Your task to perform on an android device: turn off translation in the chrome app Image 0: 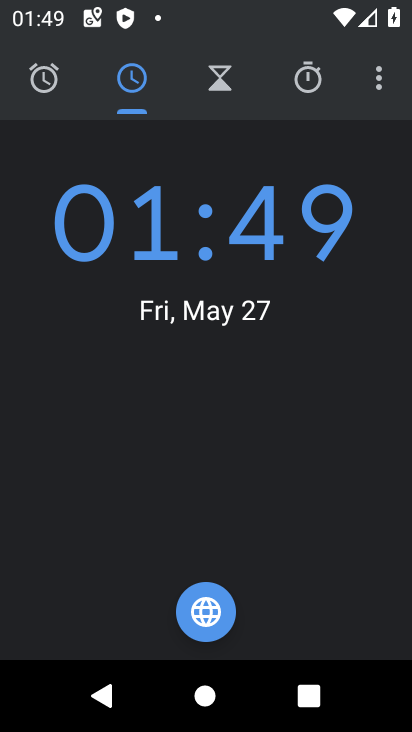
Step 0: press home button
Your task to perform on an android device: turn off translation in the chrome app Image 1: 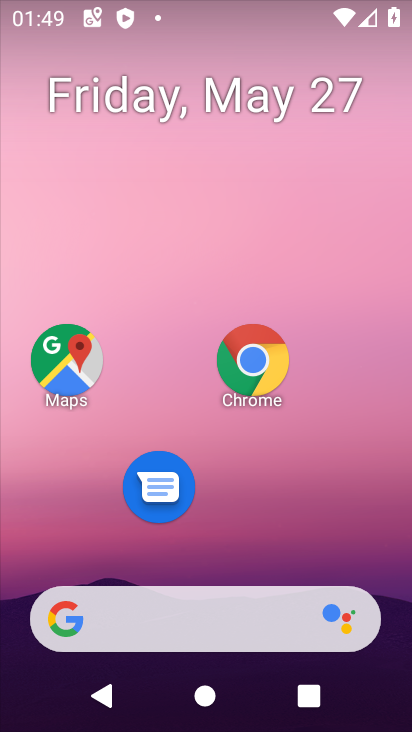
Step 1: click (257, 365)
Your task to perform on an android device: turn off translation in the chrome app Image 2: 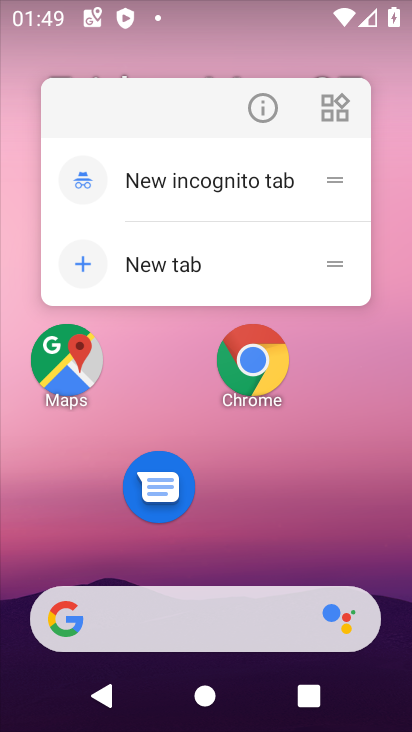
Step 2: click (257, 365)
Your task to perform on an android device: turn off translation in the chrome app Image 3: 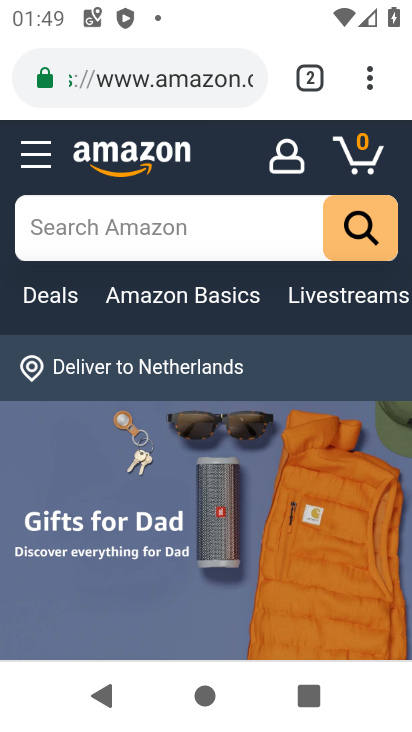
Step 3: click (361, 74)
Your task to perform on an android device: turn off translation in the chrome app Image 4: 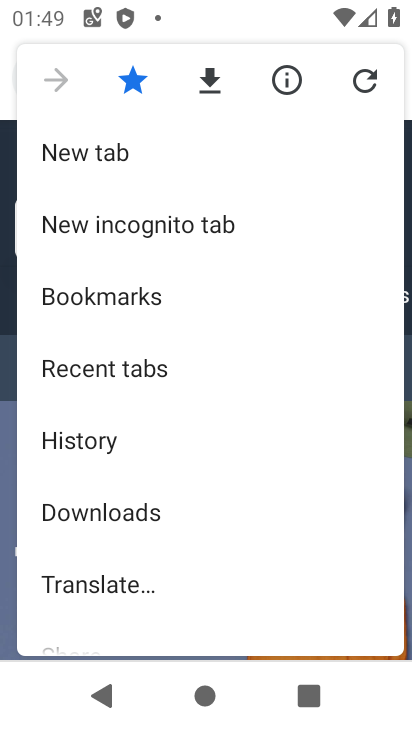
Step 4: drag from (198, 486) to (208, 79)
Your task to perform on an android device: turn off translation in the chrome app Image 5: 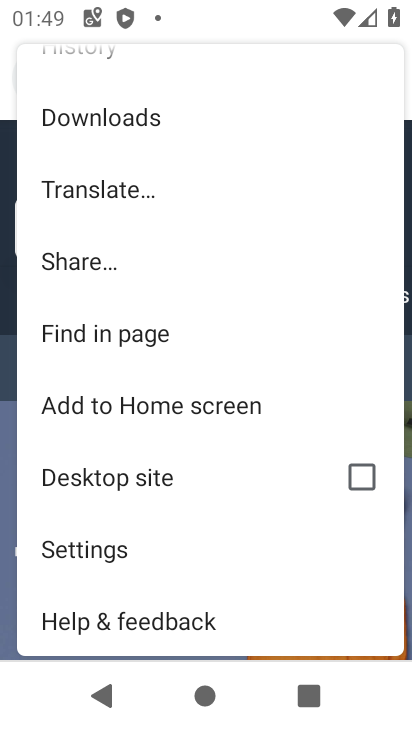
Step 5: click (107, 552)
Your task to perform on an android device: turn off translation in the chrome app Image 6: 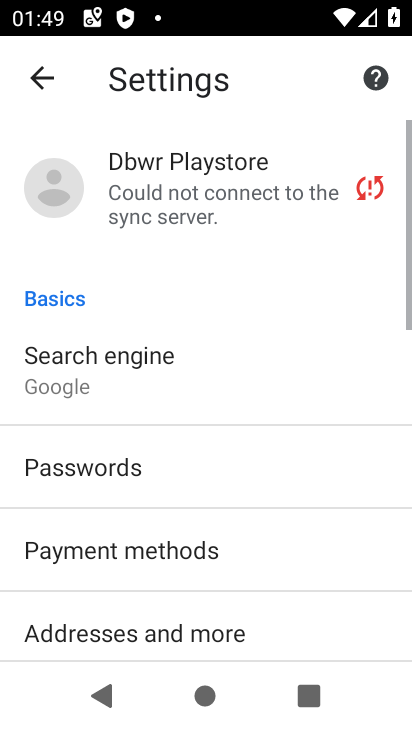
Step 6: drag from (238, 556) to (239, 114)
Your task to perform on an android device: turn off translation in the chrome app Image 7: 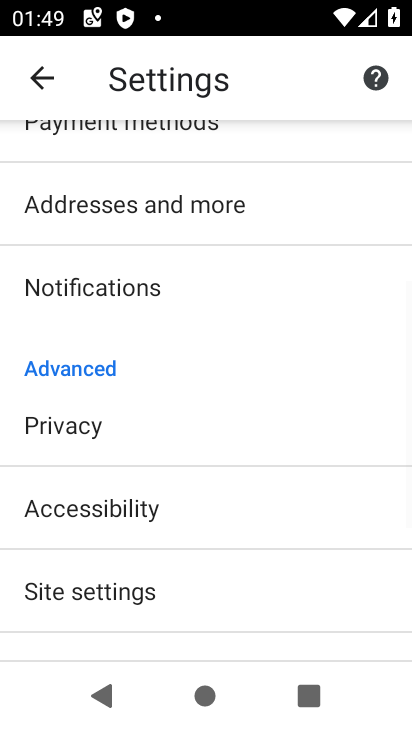
Step 7: click (99, 596)
Your task to perform on an android device: turn off translation in the chrome app Image 8: 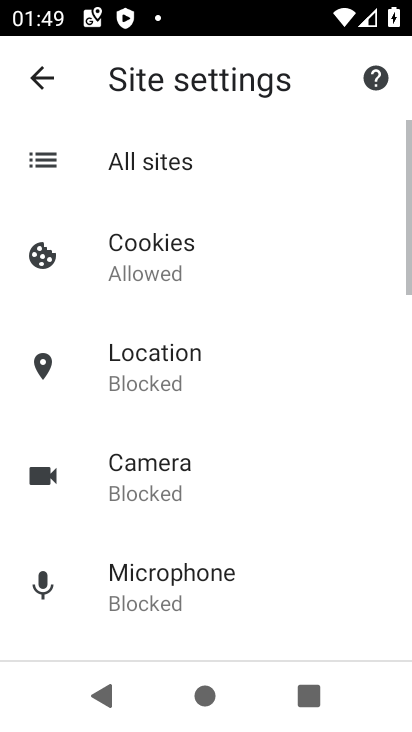
Step 8: task complete